Your task to perform on an android device: Show me productivity apps on the Play Store Image 0: 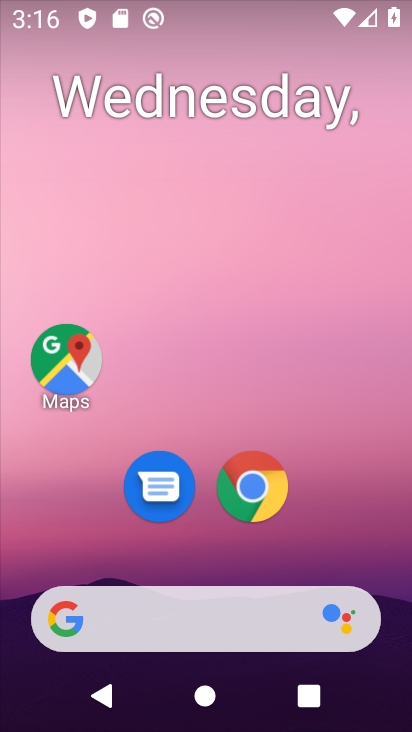
Step 0: drag from (228, 575) to (207, 170)
Your task to perform on an android device: Show me productivity apps on the Play Store Image 1: 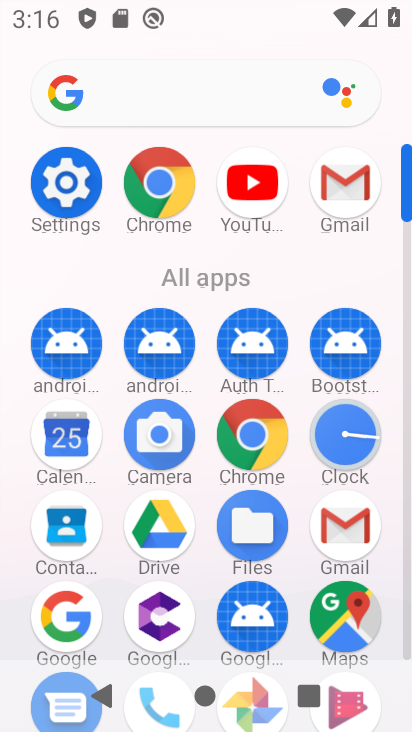
Step 1: drag from (187, 583) to (223, 101)
Your task to perform on an android device: Show me productivity apps on the Play Store Image 2: 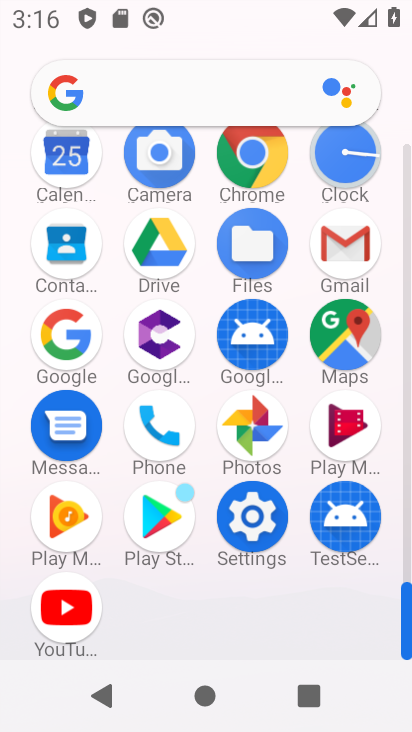
Step 2: click (152, 531)
Your task to perform on an android device: Show me productivity apps on the Play Store Image 3: 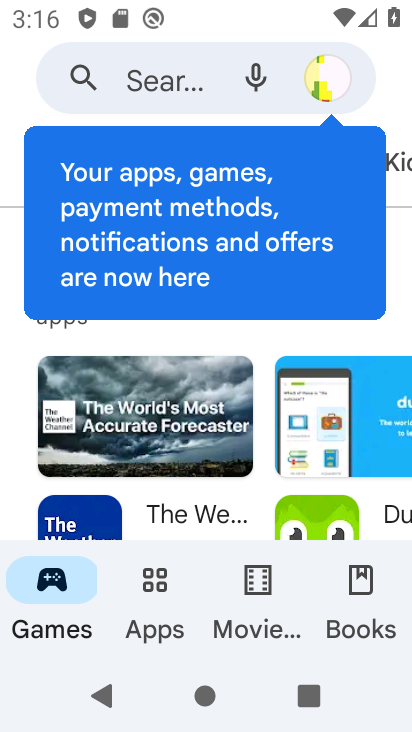
Step 3: click (154, 606)
Your task to perform on an android device: Show me productivity apps on the Play Store Image 4: 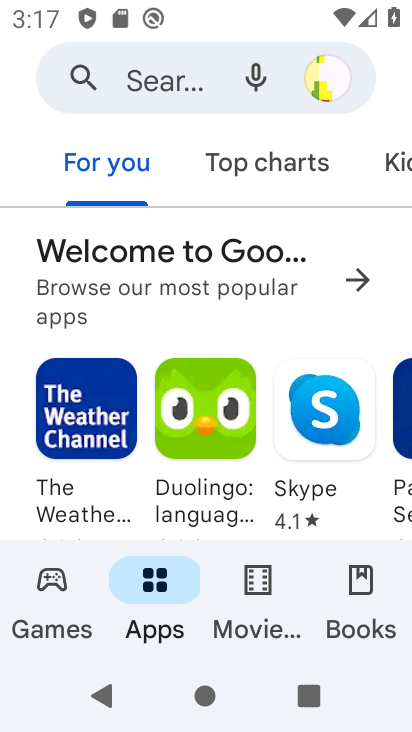
Step 4: task complete